Your task to perform on an android device: Open Amazon Image 0: 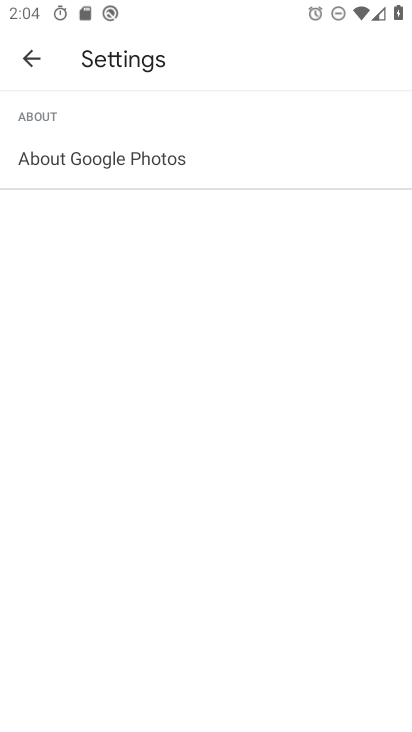
Step 0: press home button
Your task to perform on an android device: Open Amazon Image 1: 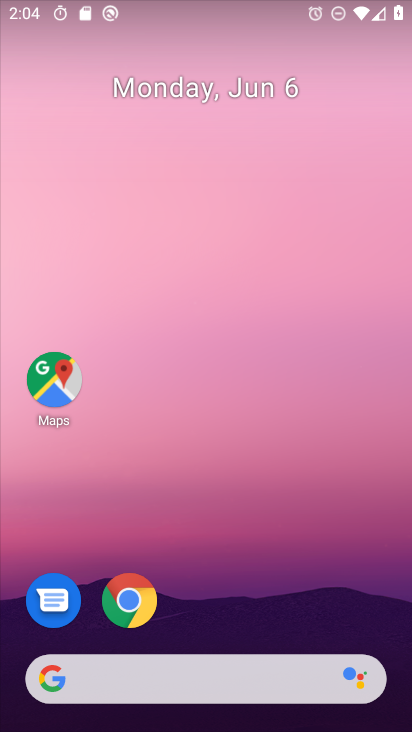
Step 1: click (146, 606)
Your task to perform on an android device: Open Amazon Image 2: 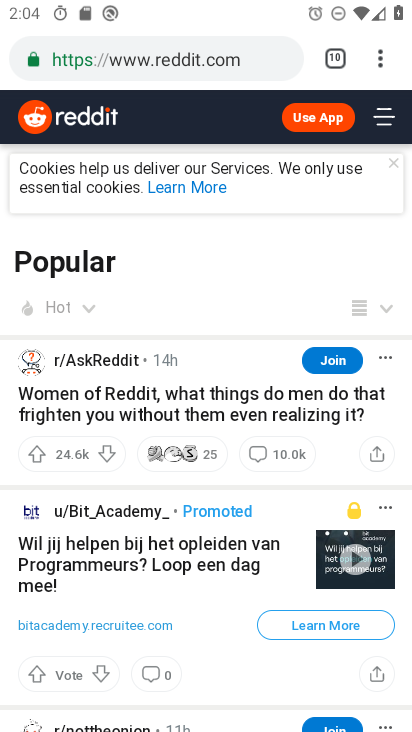
Step 2: click (333, 58)
Your task to perform on an android device: Open Amazon Image 3: 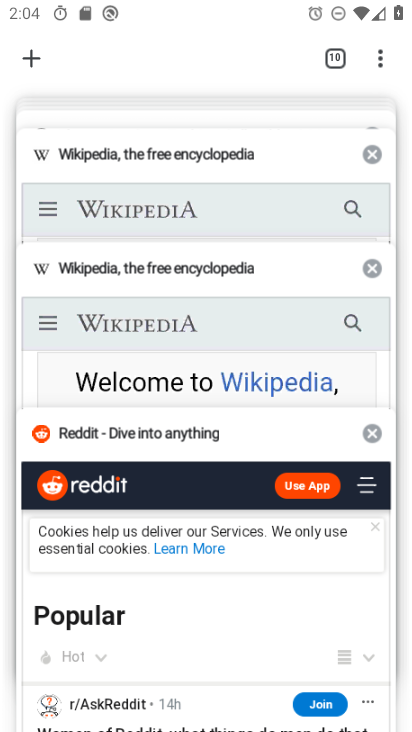
Step 3: drag from (182, 270) to (196, 465)
Your task to perform on an android device: Open Amazon Image 4: 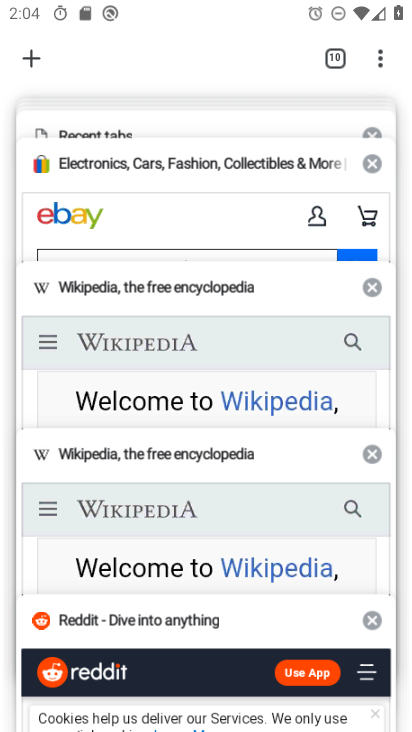
Step 4: drag from (190, 205) to (190, 465)
Your task to perform on an android device: Open Amazon Image 5: 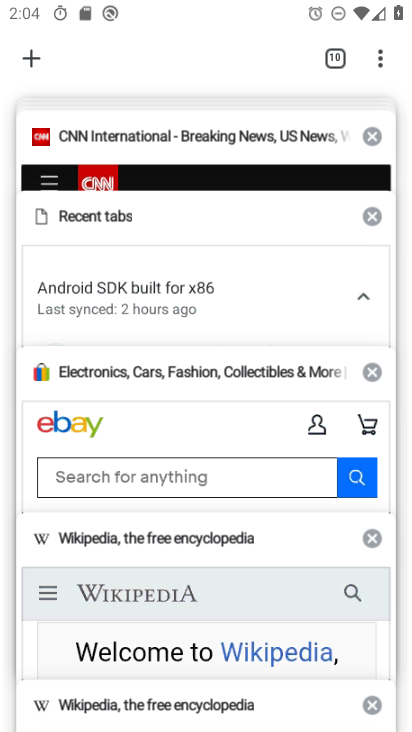
Step 5: drag from (174, 294) to (174, 445)
Your task to perform on an android device: Open Amazon Image 6: 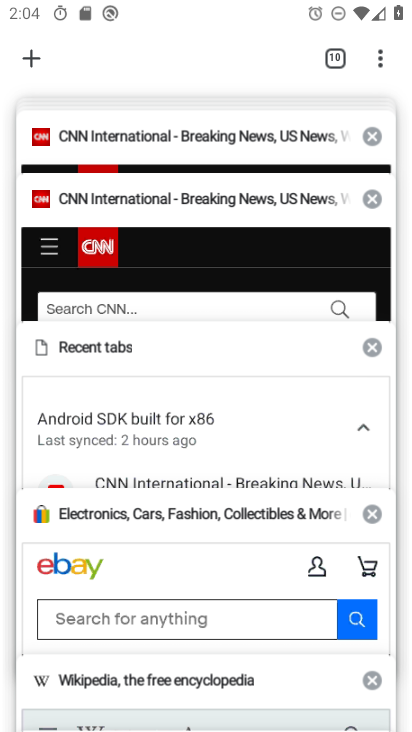
Step 6: drag from (169, 154) to (184, 391)
Your task to perform on an android device: Open Amazon Image 7: 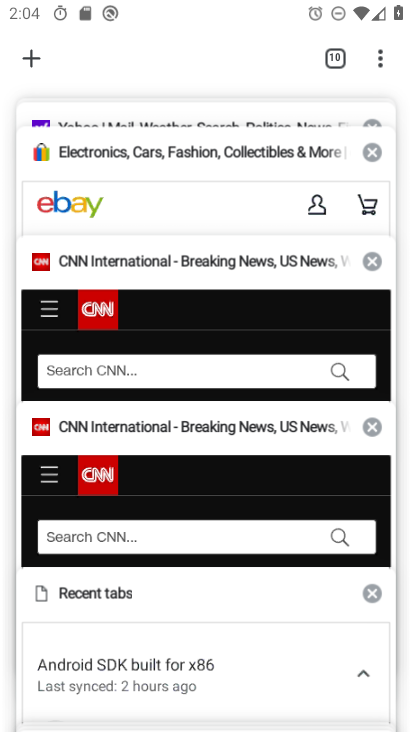
Step 7: drag from (193, 248) to (193, 468)
Your task to perform on an android device: Open Amazon Image 8: 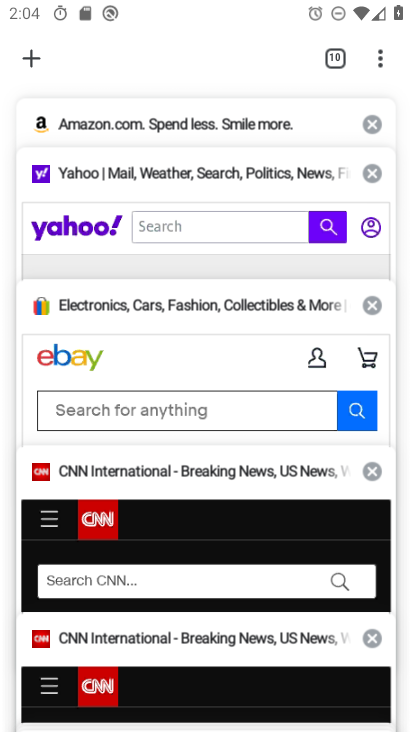
Step 8: click (191, 131)
Your task to perform on an android device: Open Amazon Image 9: 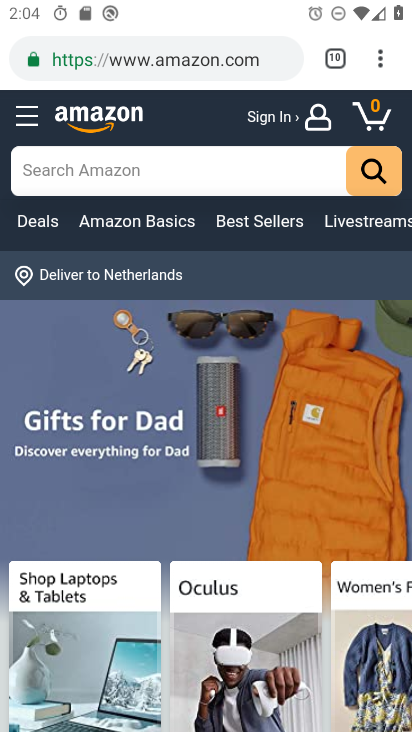
Step 9: task complete